Your task to perform on an android device: Is it going to rain today? Image 0: 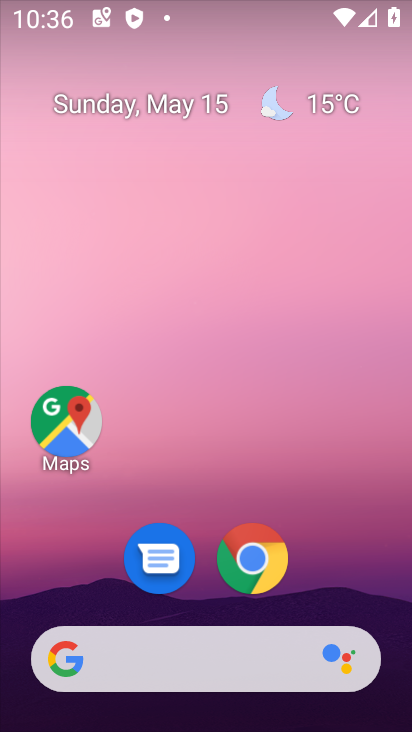
Step 0: click (315, 123)
Your task to perform on an android device: Is it going to rain today? Image 1: 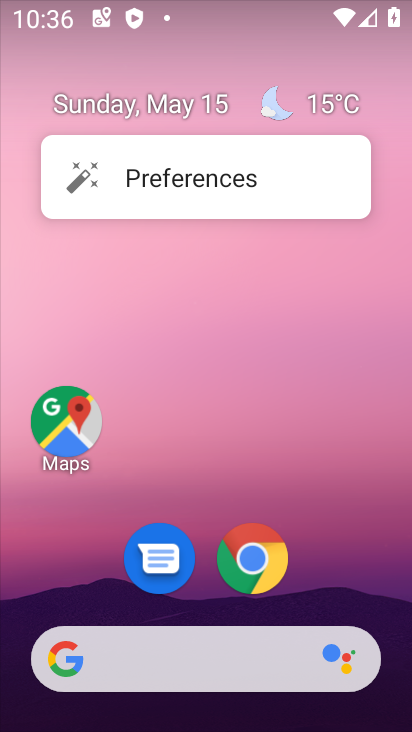
Step 1: click (317, 111)
Your task to perform on an android device: Is it going to rain today? Image 2: 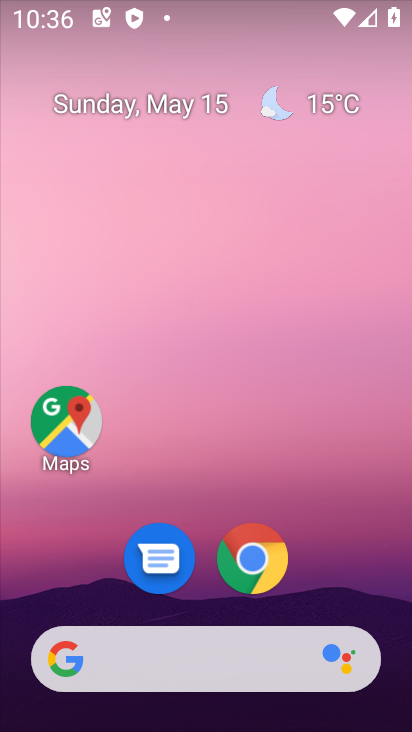
Step 2: click (311, 111)
Your task to perform on an android device: Is it going to rain today? Image 3: 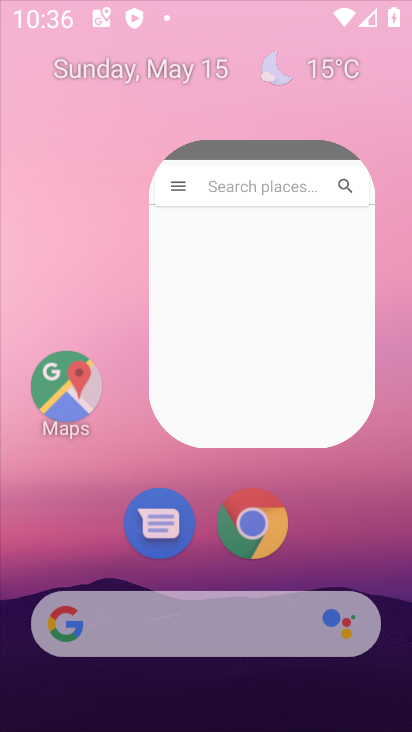
Step 3: click (298, 109)
Your task to perform on an android device: Is it going to rain today? Image 4: 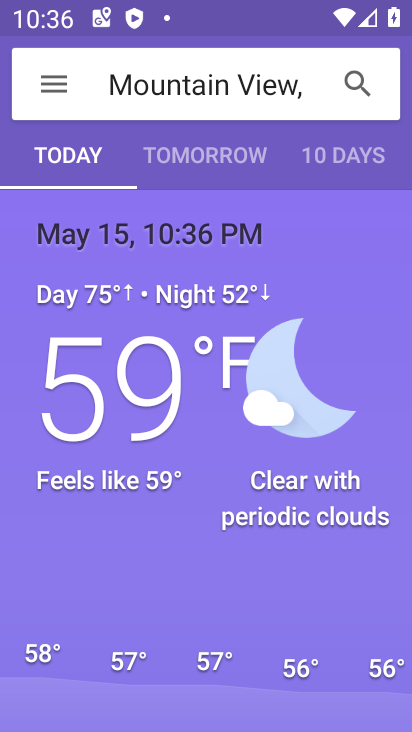
Step 4: task complete